Your task to perform on an android device: add a contact Image 0: 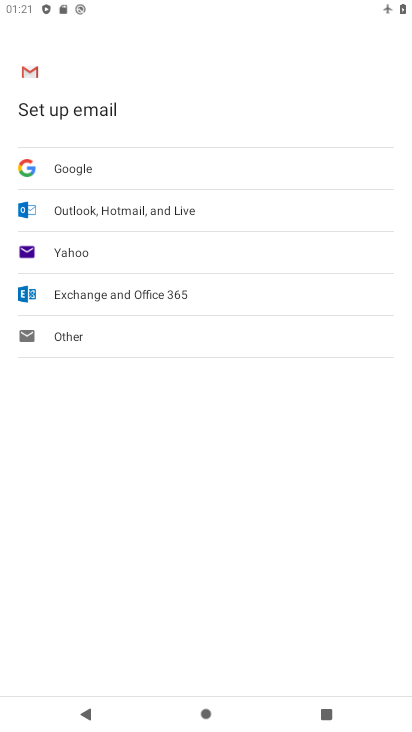
Step 0: press home button
Your task to perform on an android device: add a contact Image 1: 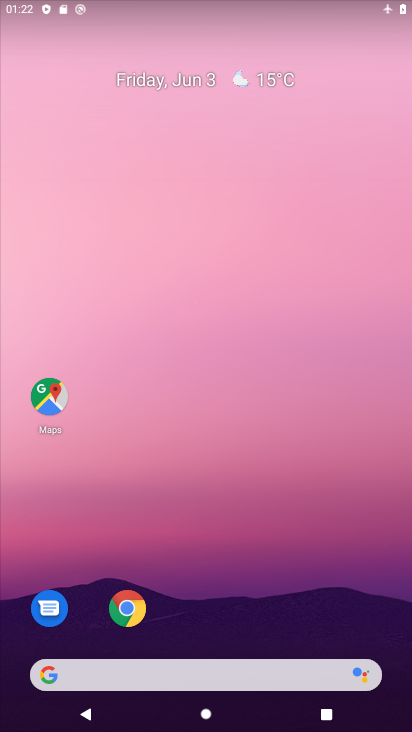
Step 1: drag from (262, 395) to (238, 110)
Your task to perform on an android device: add a contact Image 2: 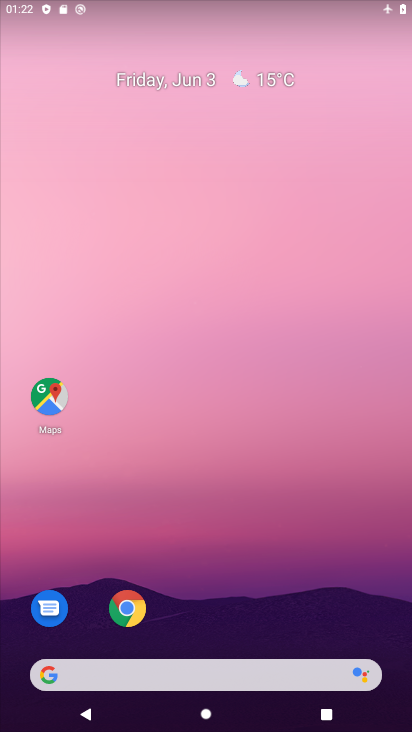
Step 2: drag from (264, 553) to (245, 40)
Your task to perform on an android device: add a contact Image 3: 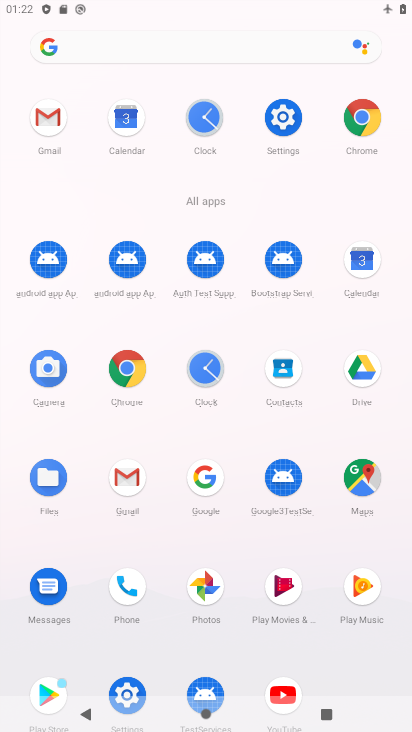
Step 3: click (293, 367)
Your task to perform on an android device: add a contact Image 4: 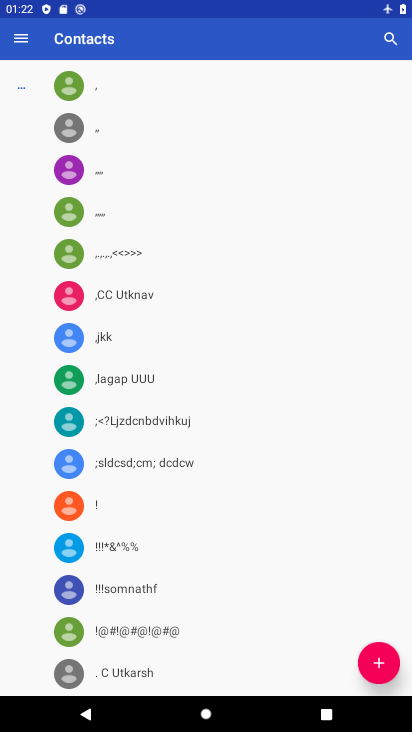
Step 4: click (380, 663)
Your task to perform on an android device: add a contact Image 5: 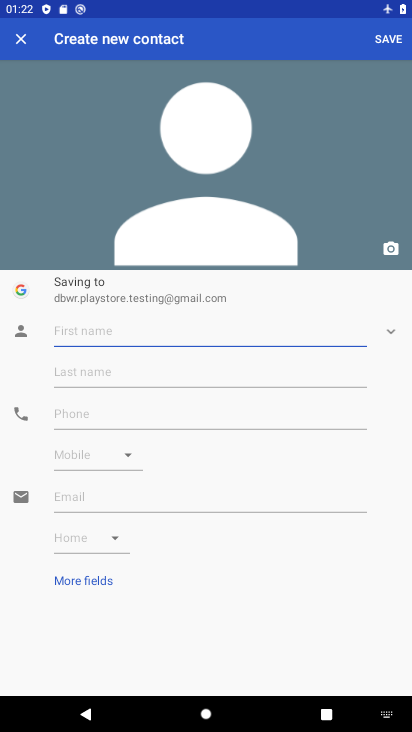
Step 5: type "infineer"
Your task to perform on an android device: add a contact Image 6: 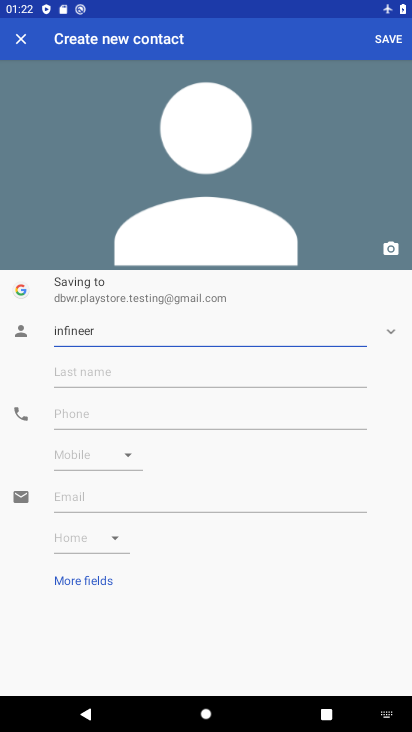
Step 6: click (394, 43)
Your task to perform on an android device: add a contact Image 7: 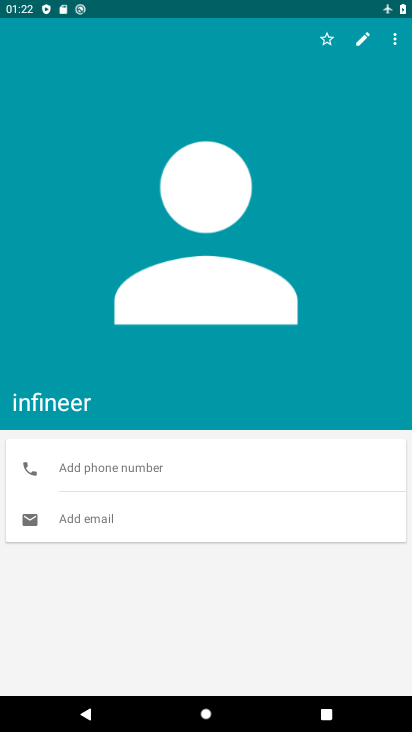
Step 7: task complete